Your task to perform on an android device: Open internet settings Image 0: 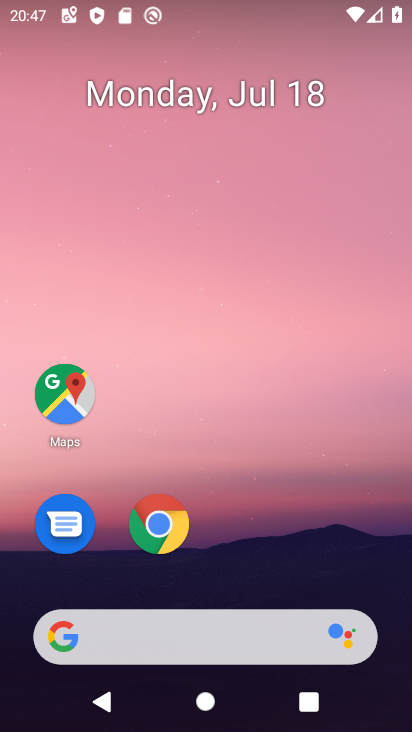
Step 0: drag from (241, 541) to (261, 98)
Your task to perform on an android device: Open internet settings Image 1: 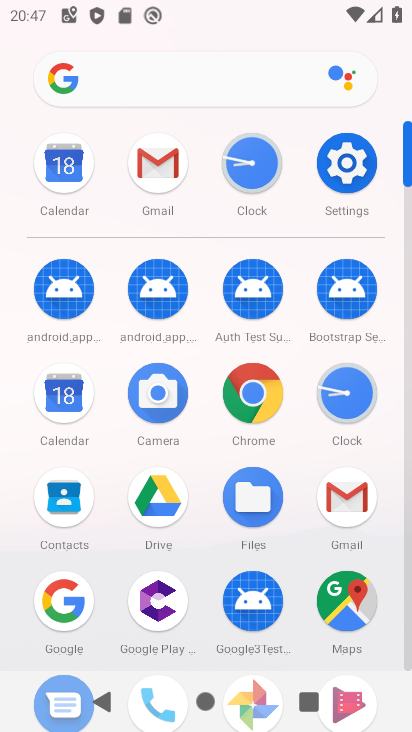
Step 1: click (339, 172)
Your task to perform on an android device: Open internet settings Image 2: 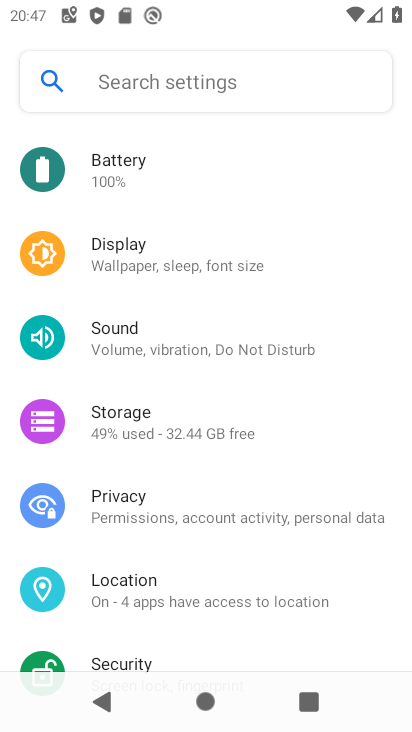
Step 2: drag from (236, 321) to (226, 683)
Your task to perform on an android device: Open internet settings Image 3: 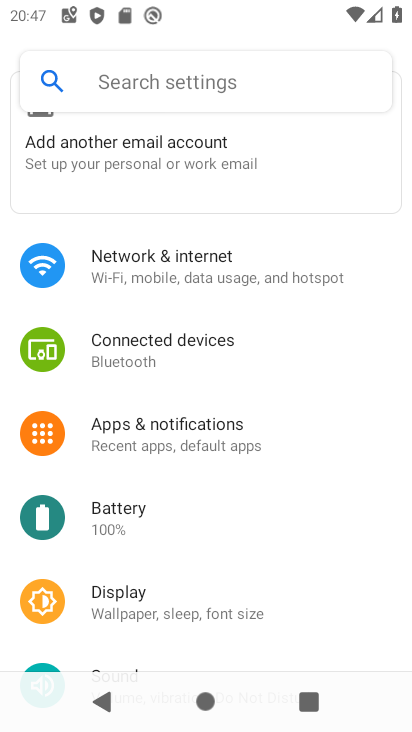
Step 3: click (256, 274)
Your task to perform on an android device: Open internet settings Image 4: 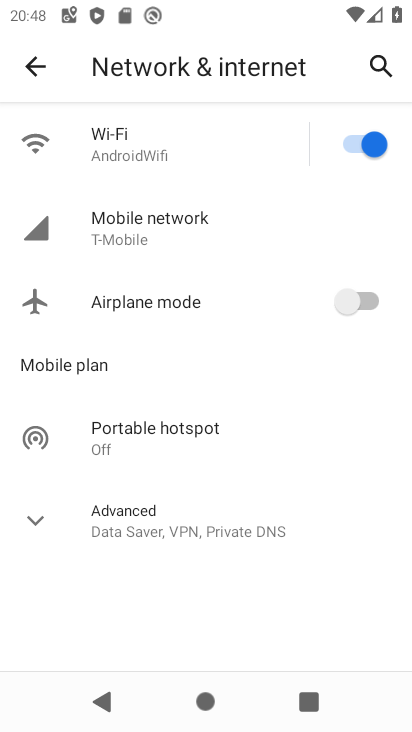
Step 4: task complete